Your task to perform on an android device: Open the Play Movies app and select the watchlist tab. Image 0: 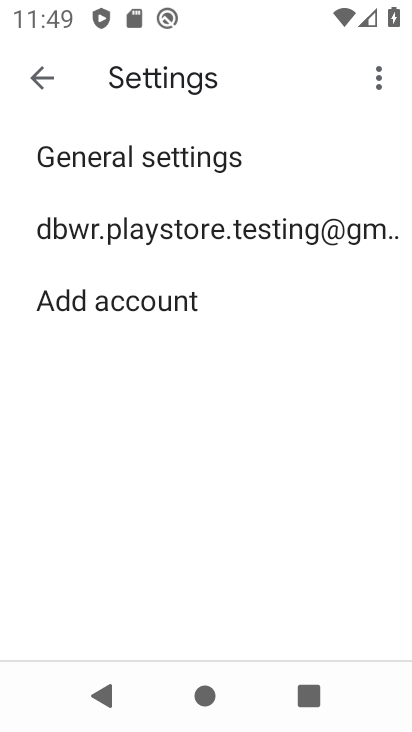
Step 0: press home button
Your task to perform on an android device: Open the Play Movies app and select the watchlist tab. Image 1: 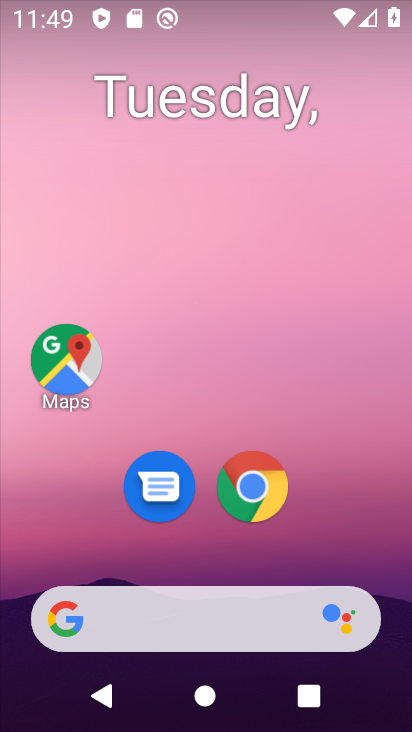
Step 1: drag from (116, 577) to (260, 46)
Your task to perform on an android device: Open the Play Movies app and select the watchlist tab. Image 2: 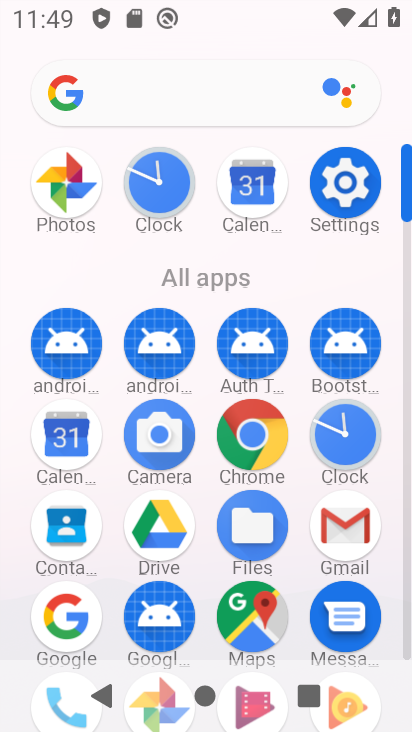
Step 2: drag from (199, 617) to (280, 323)
Your task to perform on an android device: Open the Play Movies app and select the watchlist tab. Image 3: 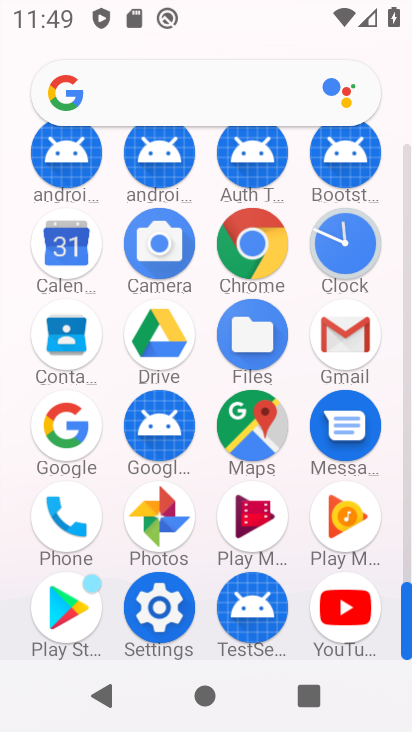
Step 3: click (239, 496)
Your task to perform on an android device: Open the Play Movies app and select the watchlist tab. Image 4: 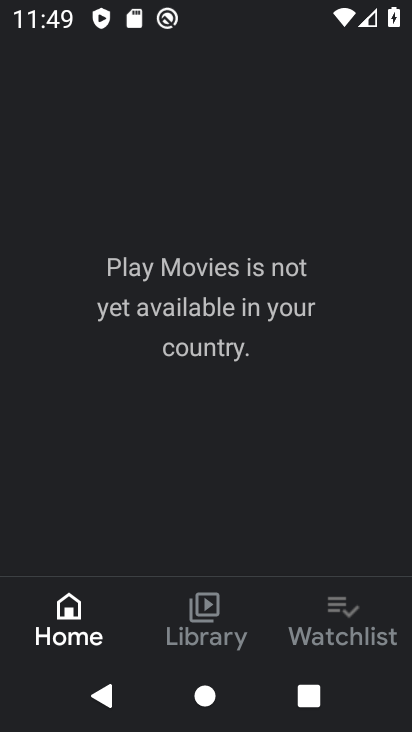
Step 4: click (338, 640)
Your task to perform on an android device: Open the Play Movies app and select the watchlist tab. Image 5: 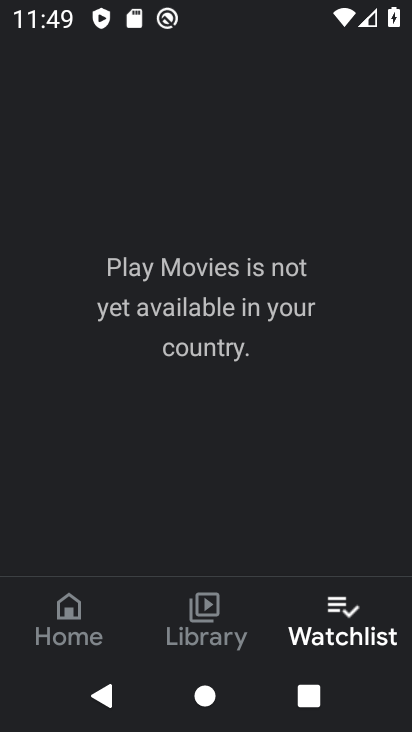
Step 5: task complete